Your task to perform on an android device: Search for razer blade on bestbuy.com, select the first entry, and add it to the cart. Image 0: 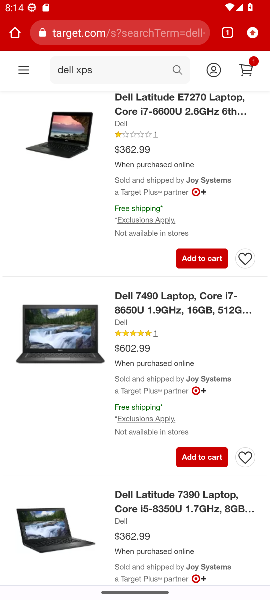
Step 0: click (136, 31)
Your task to perform on an android device: Search for razer blade on bestbuy.com, select the first entry, and add it to the cart. Image 1: 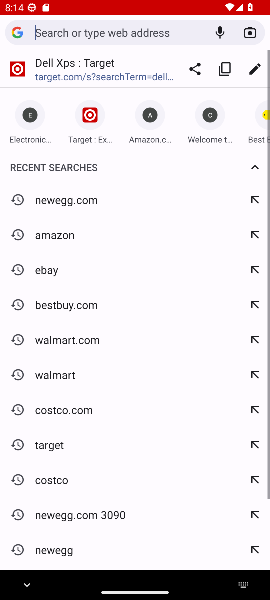
Step 1: click (48, 300)
Your task to perform on an android device: Search for razer blade on bestbuy.com, select the first entry, and add it to the cart. Image 2: 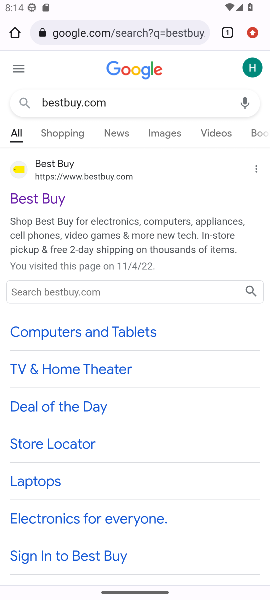
Step 2: click (53, 190)
Your task to perform on an android device: Search for razer blade on bestbuy.com, select the first entry, and add it to the cart. Image 3: 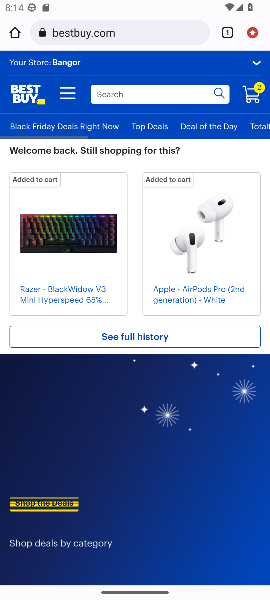
Step 3: click (143, 97)
Your task to perform on an android device: Search for razer blade on bestbuy.com, select the first entry, and add it to the cart. Image 4: 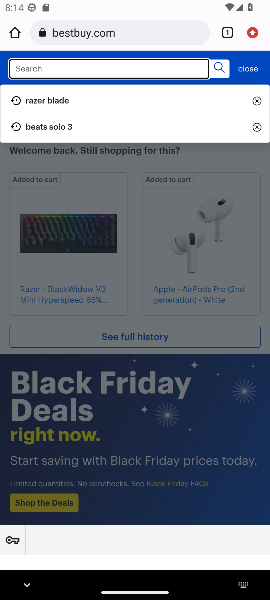
Step 4: type "razer blade"
Your task to perform on an android device: Search for razer blade on bestbuy.com, select the first entry, and add it to the cart. Image 5: 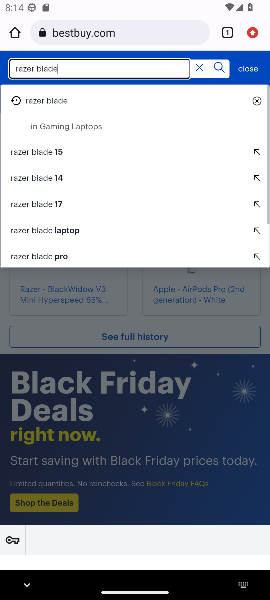
Step 5: click (46, 103)
Your task to perform on an android device: Search for razer blade on bestbuy.com, select the first entry, and add it to the cart. Image 6: 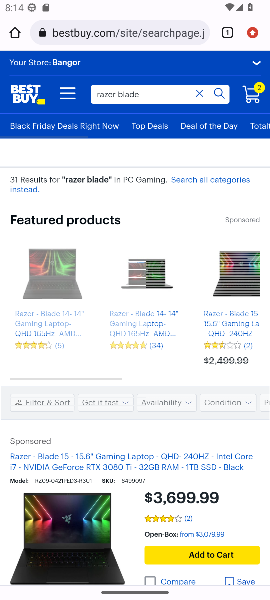
Step 6: click (80, 505)
Your task to perform on an android device: Search for razer blade on bestbuy.com, select the first entry, and add it to the cart. Image 7: 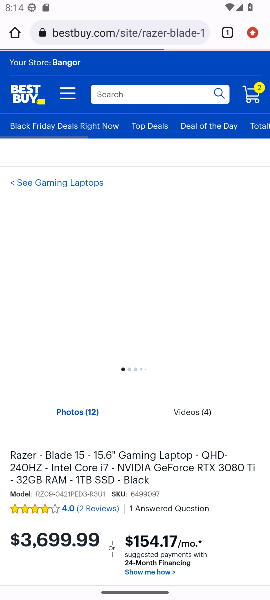
Step 7: drag from (133, 471) to (131, 218)
Your task to perform on an android device: Search for razer blade on bestbuy.com, select the first entry, and add it to the cart. Image 8: 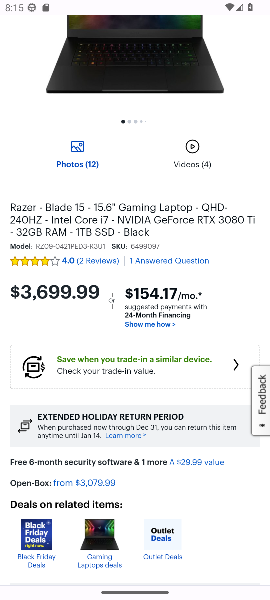
Step 8: drag from (107, 480) to (85, 169)
Your task to perform on an android device: Search for razer blade on bestbuy.com, select the first entry, and add it to the cart. Image 9: 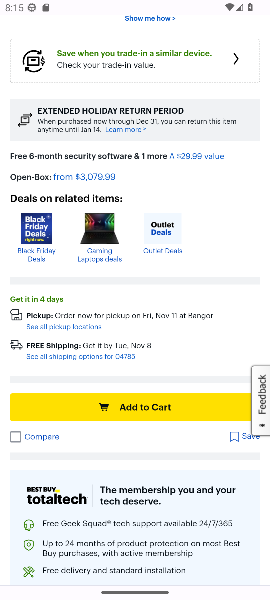
Step 9: click (128, 406)
Your task to perform on an android device: Search for razer blade on bestbuy.com, select the first entry, and add it to the cart. Image 10: 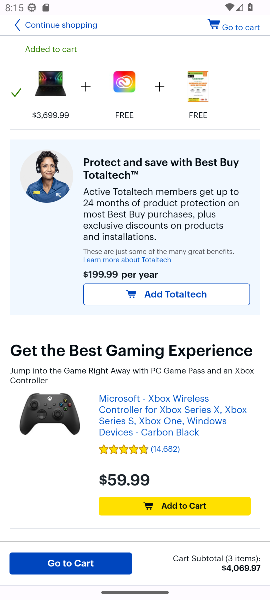
Step 10: task complete